Your task to perform on an android device: open app "LiveIn - Share Your Moment" (install if not already installed) Image 0: 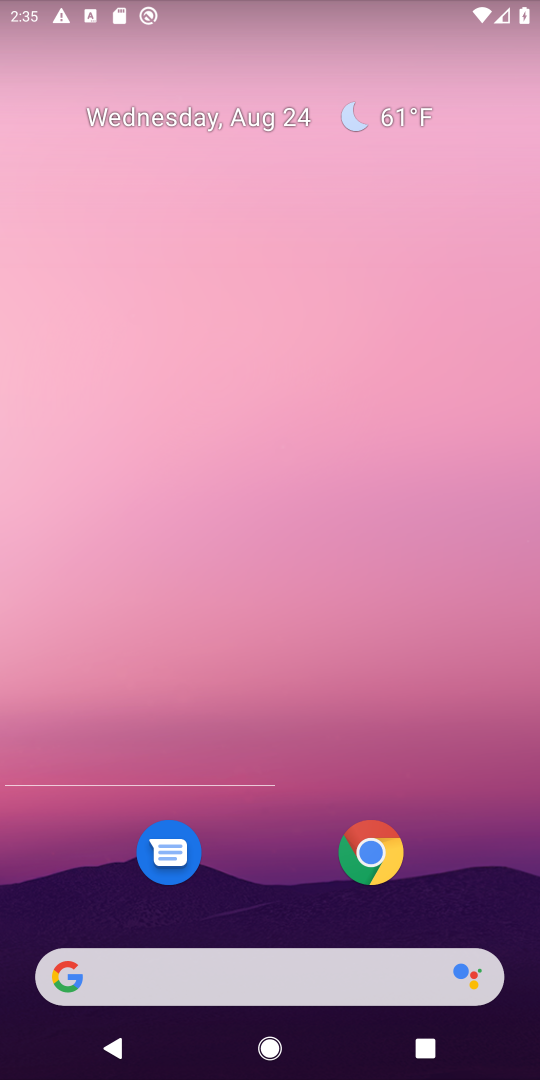
Step 0: click (307, 22)
Your task to perform on an android device: open app "LiveIn - Share Your Moment" (install if not already installed) Image 1: 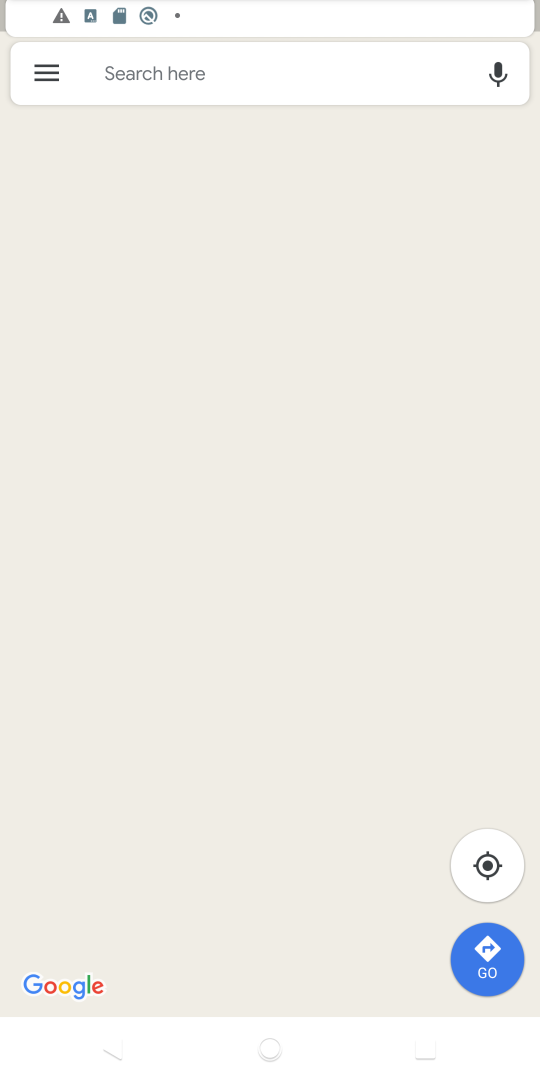
Step 1: drag from (266, 903) to (315, 23)
Your task to perform on an android device: open app "LiveIn - Share Your Moment" (install if not already installed) Image 2: 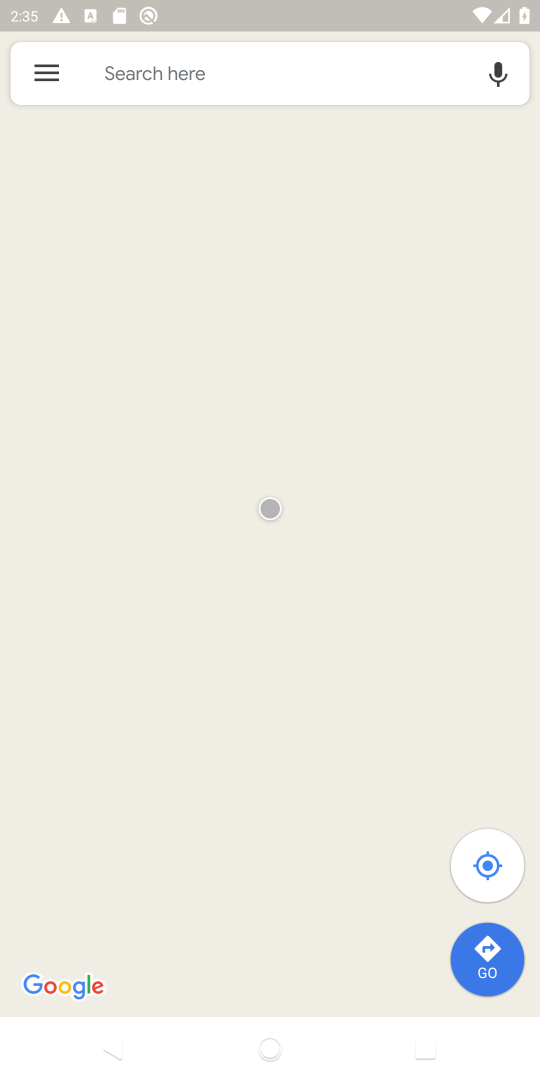
Step 2: press home button
Your task to perform on an android device: open app "LiveIn - Share Your Moment" (install if not already installed) Image 3: 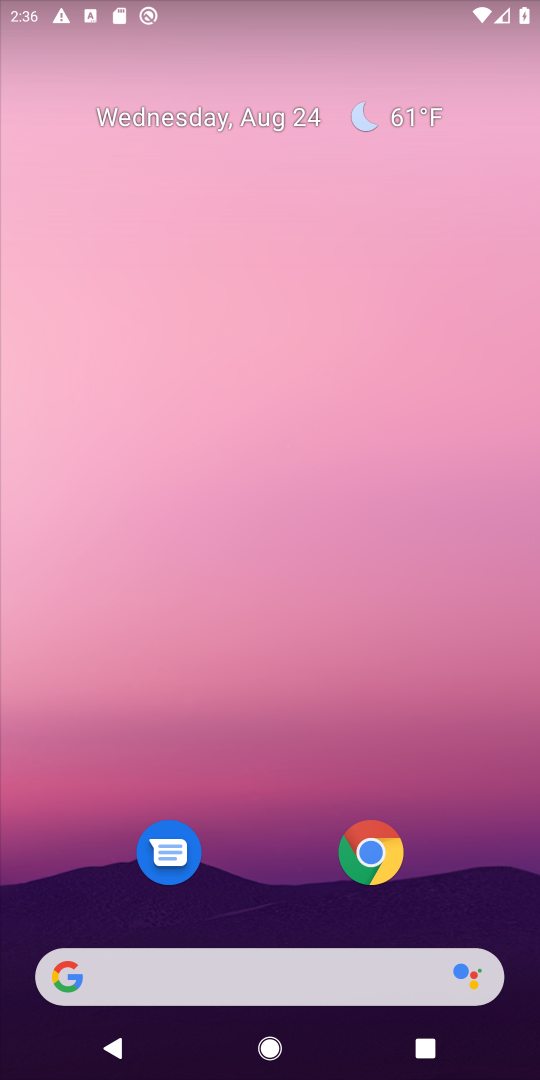
Step 3: drag from (286, 912) to (328, 112)
Your task to perform on an android device: open app "LiveIn - Share Your Moment" (install if not already installed) Image 4: 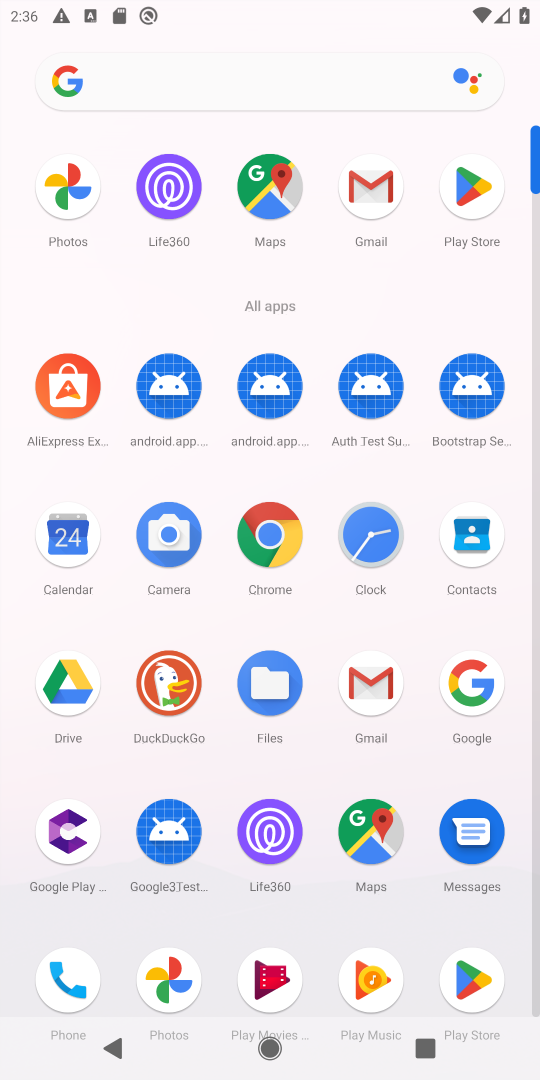
Step 4: click (471, 181)
Your task to perform on an android device: open app "LiveIn - Share Your Moment" (install if not already installed) Image 5: 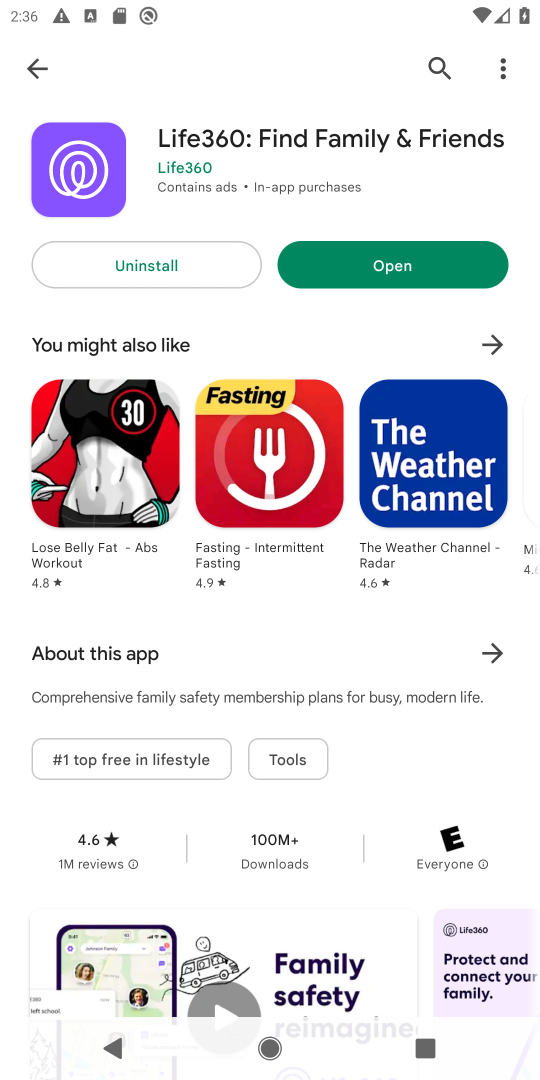
Step 5: click (433, 66)
Your task to perform on an android device: open app "LiveIn - Share Your Moment" (install if not already installed) Image 6: 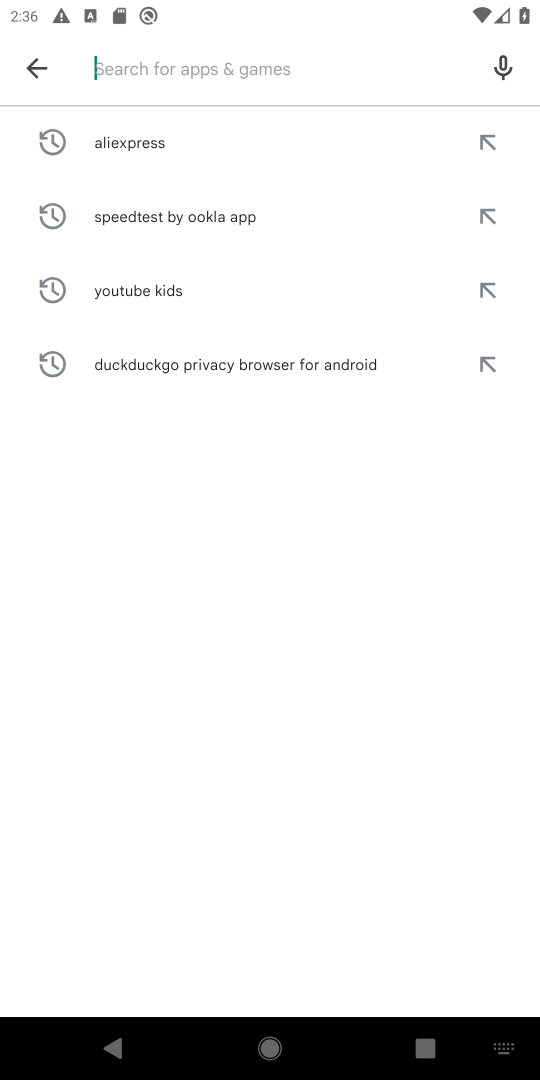
Step 6: type "LiveIn - Share Your Moment"
Your task to perform on an android device: open app "LiveIn - Share Your Moment" (install if not already installed) Image 7: 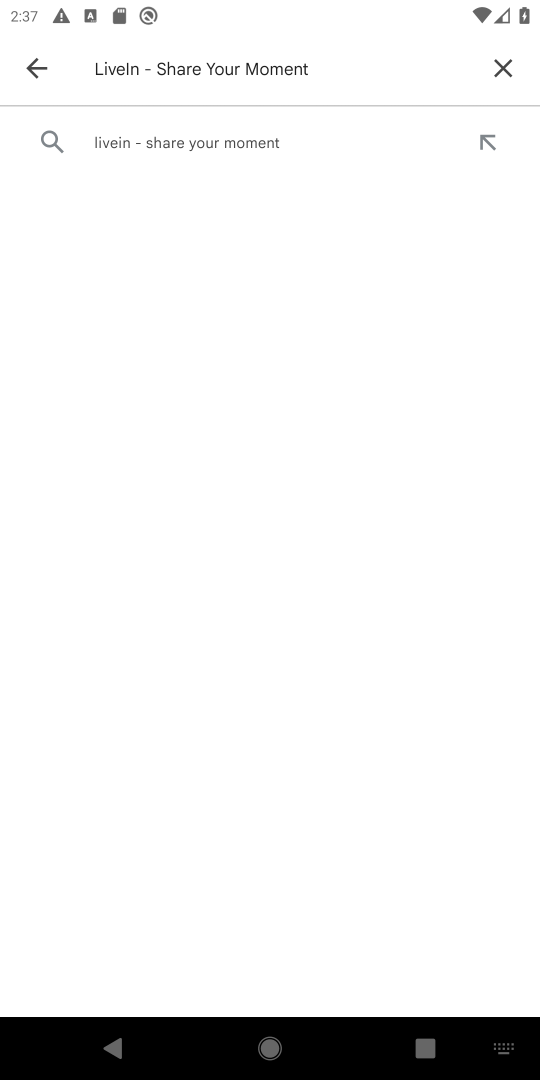
Step 7: click (262, 135)
Your task to perform on an android device: open app "LiveIn - Share Your Moment" (install if not already installed) Image 8: 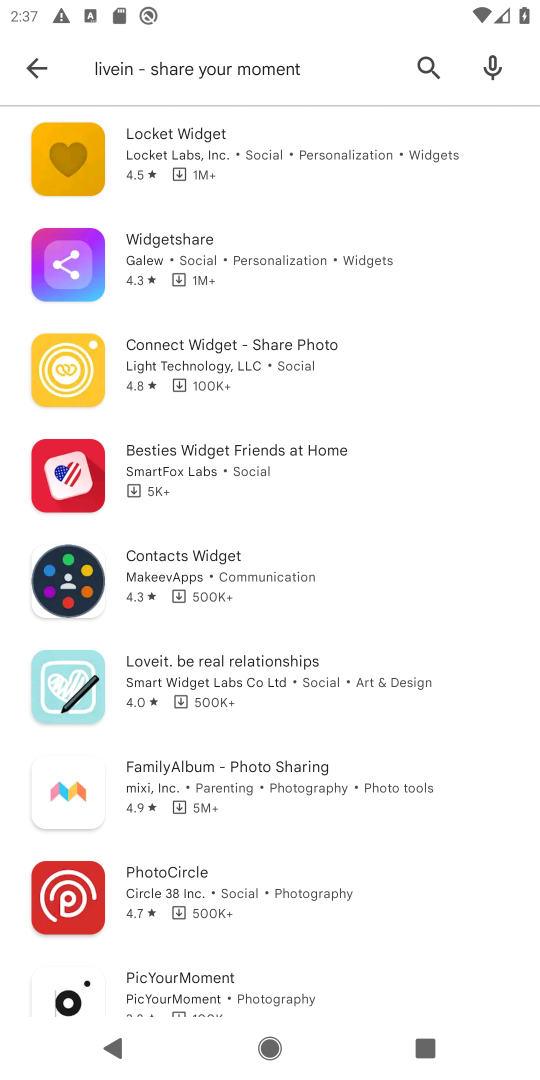
Step 8: click (440, 60)
Your task to perform on an android device: open app "LiveIn - Share Your Moment" (install if not already installed) Image 9: 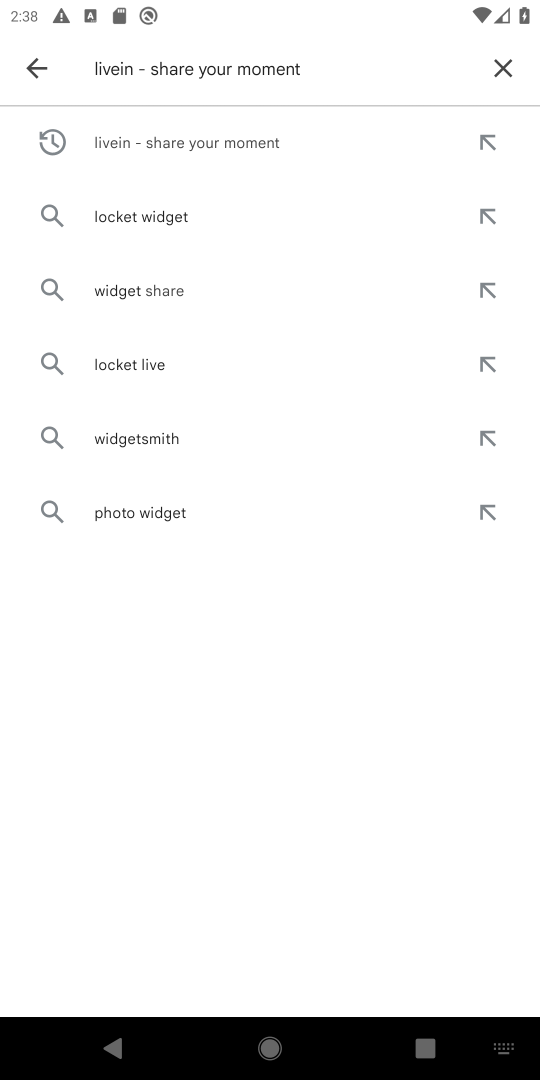
Step 9: click (206, 131)
Your task to perform on an android device: open app "LiveIn - Share Your Moment" (install if not already installed) Image 10: 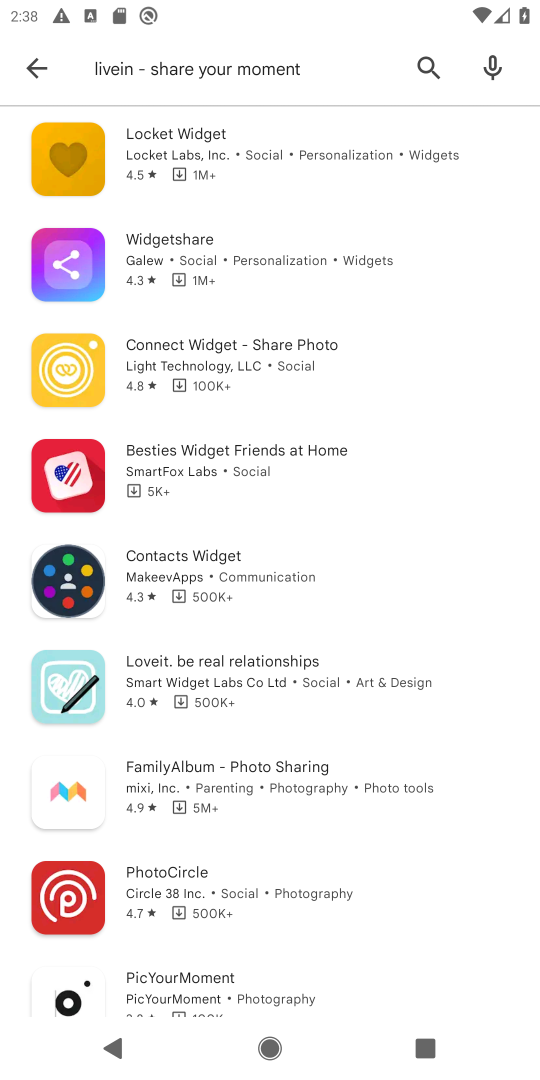
Step 10: task complete